Your task to perform on an android device: change the clock display to digital Image 0: 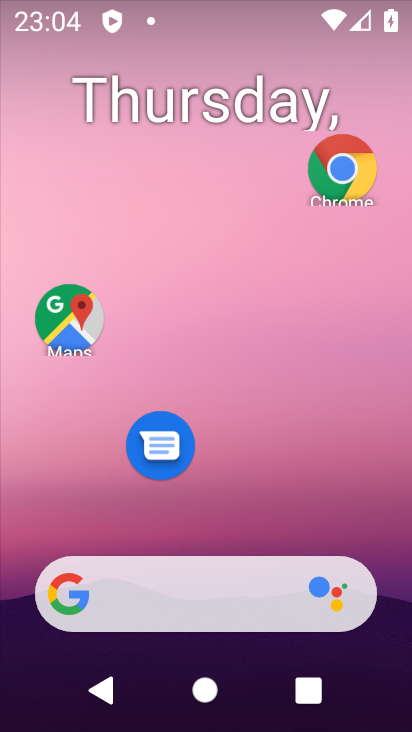
Step 0: drag from (213, 522) to (240, 194)
Your task to perform on an android device: change the clock display to digital Image 1: 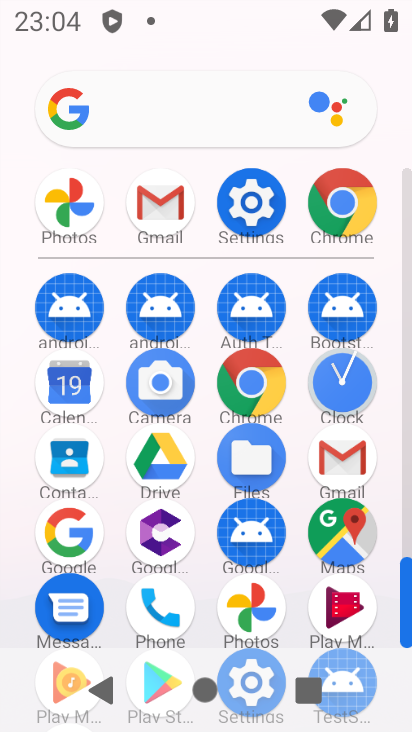
Step 1: click (348, 378)
Your task to perform on an android device: change the clock display to digital Image 2: 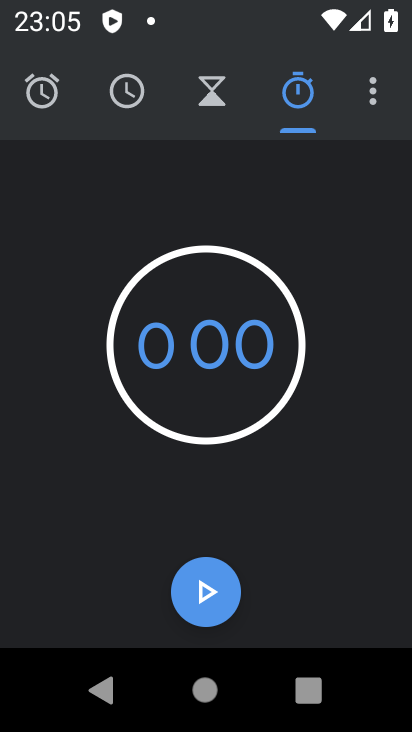
Step 2: click (385, 106)
Your task to perform on an android device: change the clock display to digital Image 3: 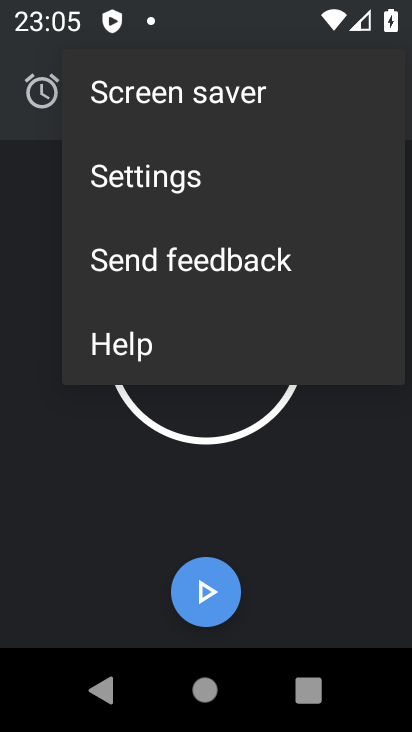
Step 3: click (135, 180)
Your task to perform on an android device: change the clock display to digital Image 4: 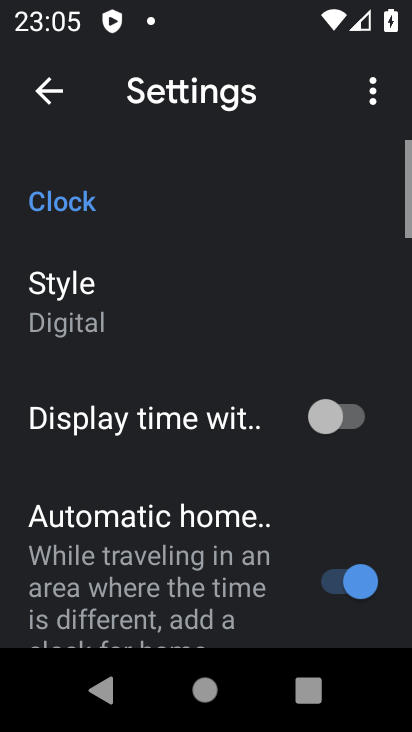
Step 4: click (91, 320)
Your task to perform on an android device: change the clock display to digital Image 5: 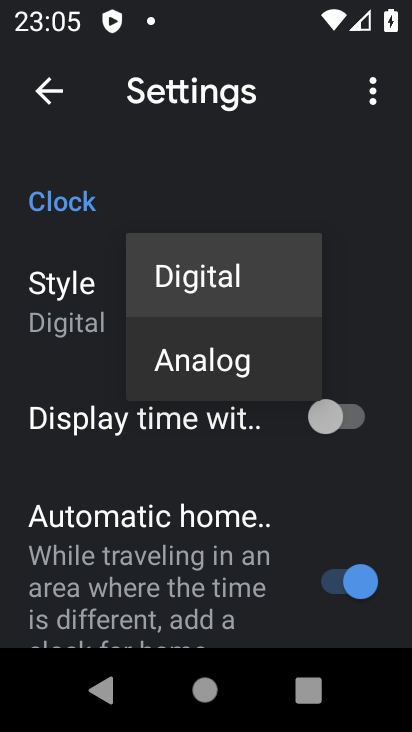
Step 5: task complete